Your task to perform on an android device: Open calendar and show me the first week of next month Image 0: 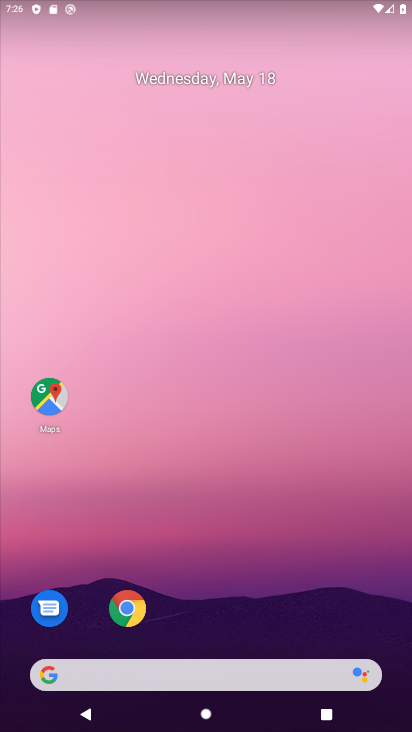
Step 0: drag from (334, 598) to (340, 107)
Your task to perform on an android device: Open calendar and show me the first week of next month Image 1: 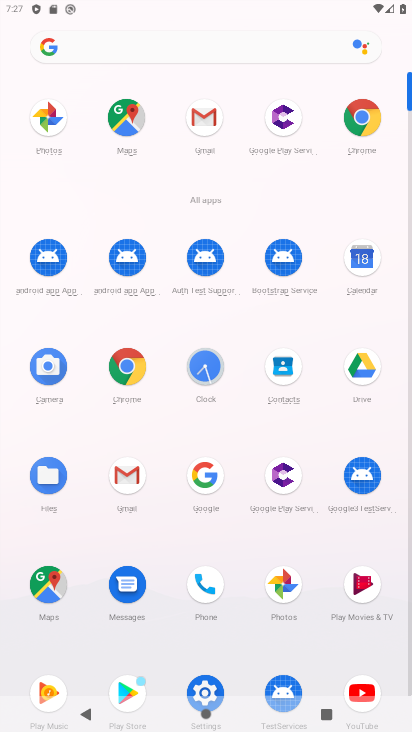
Step 1: click (361, 264)
Your task to perform on an android device: Open calendar and show me the first week of next month Image 2: 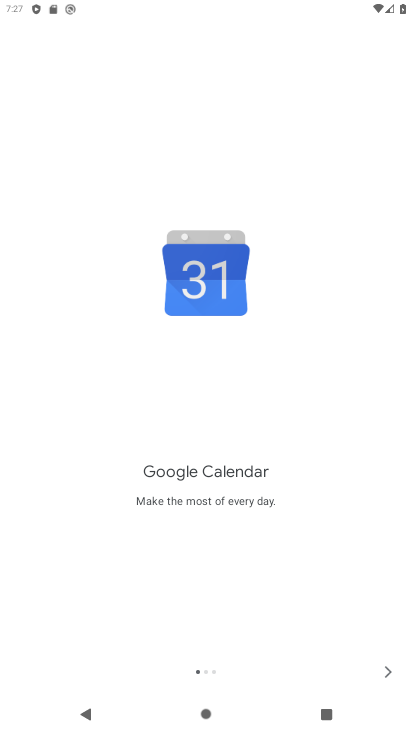
Step 2: click (390, 662)
Your task to perform on an android device: Open calendar and show me the first week of next month Image 3: 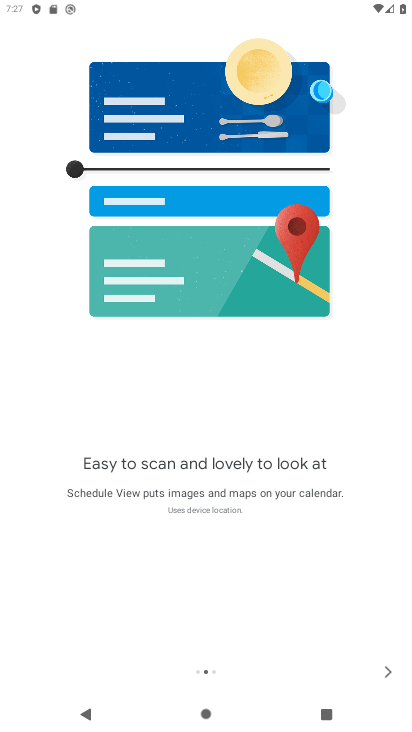
Step 3: click (391, 662)
Your task to perform on an android device: Open calendar and show me the first week of next month Image 4: 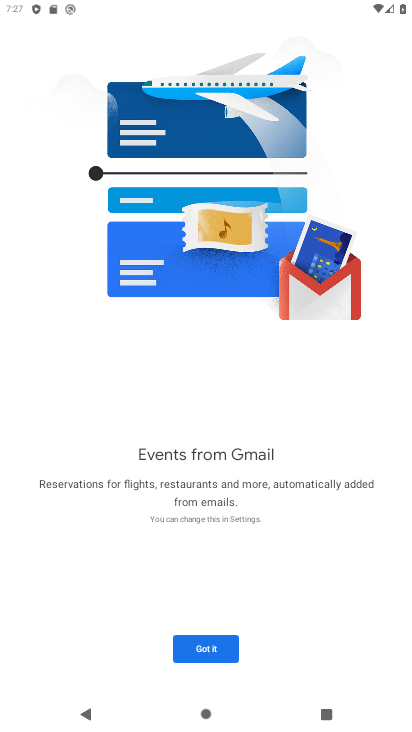
Step 4: click (207, 644)
Your task to perform on an android device: Open calendar and show me the first week of next month Image 5: 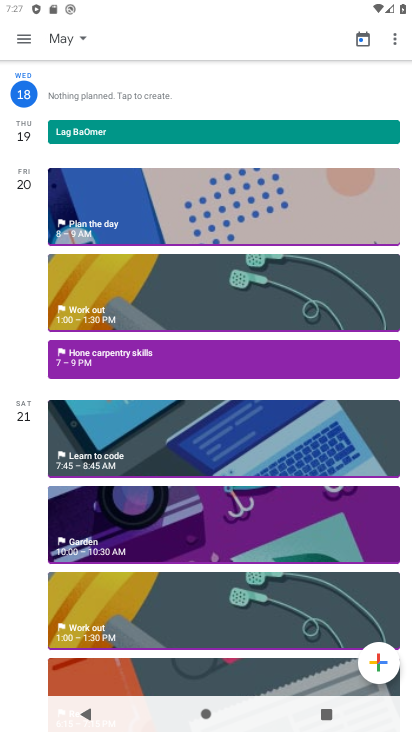
Step 5: click (25, 25)
Your task to perform on an android device: Open calendar and show me the first week of next month Image 6: 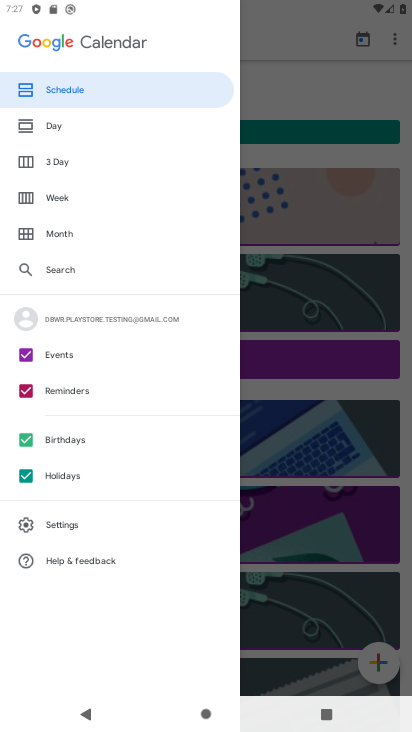
Step 6: click (65, 198)
Your task to perform on an android device: Open calendar and show me the first week of next month Image 7: 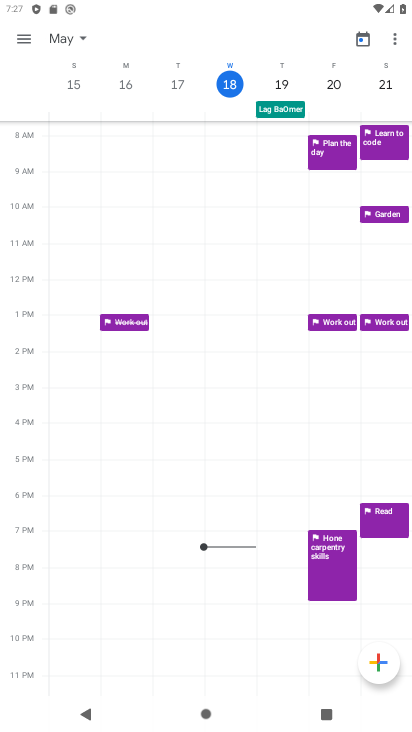
Step 7: click (82, 37)
Your task to perform on an android device: Open calendar and show me the first week of next month Image 8: 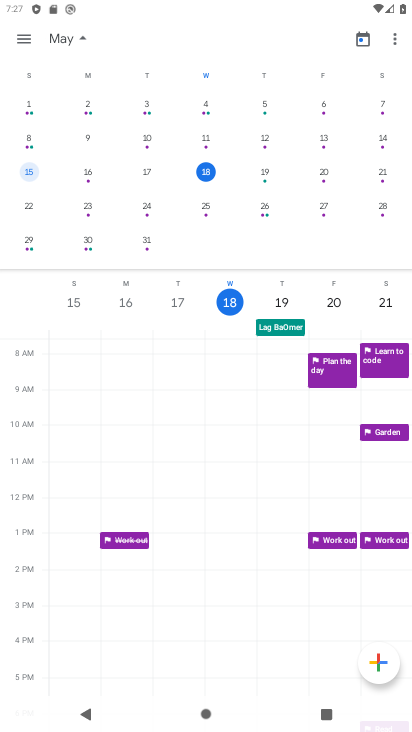
Step 8: drag from (332, 174) to (2, 173)
Your task to perform on an android device: Open calendar and show me the first week of next month Image 9: 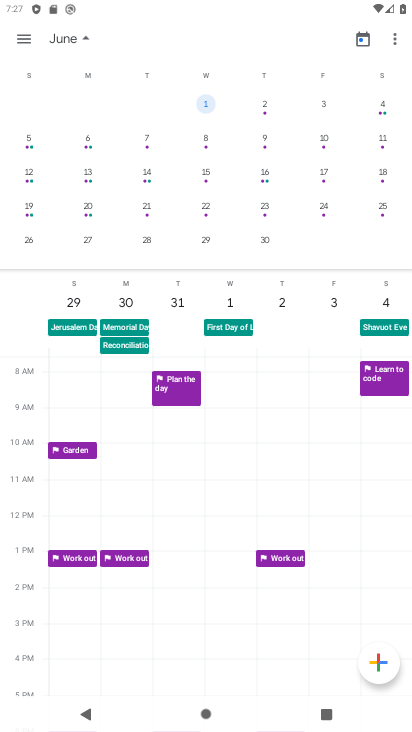
Step 9: click (84, 144)
Your task to perform on an android device: Open calendar and show me the first week of next month Image 10: 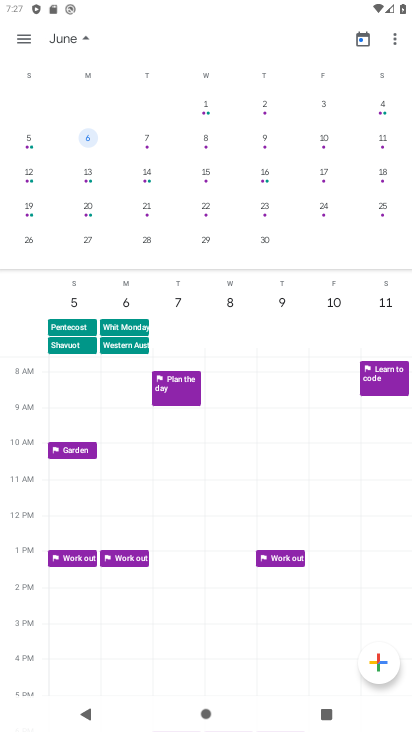
Step 10: task complete